Your task to perform on an android device: visit the assistant section in the google photos Image 0: 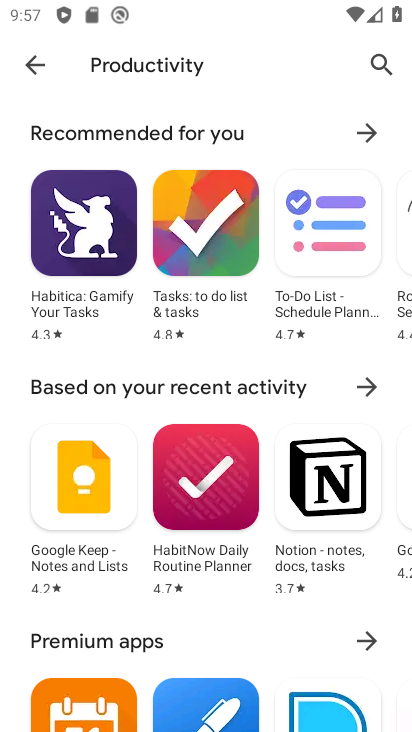
Step 0: press home button
Your task to perform on an android device: visit the assistant section in the google photos Image 1: 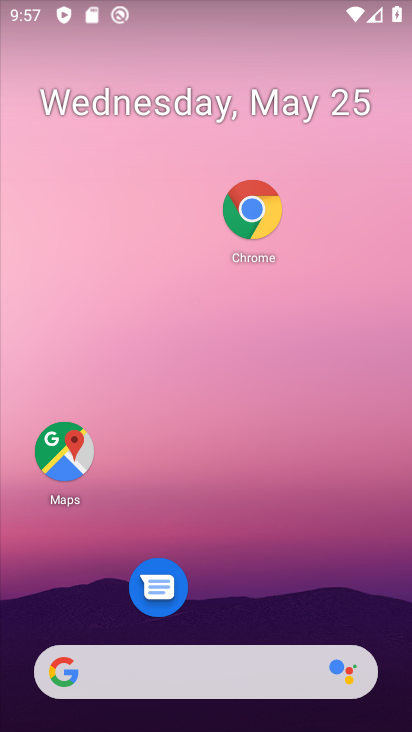
Step 1: drag from (235, 628) to (273, 4)
Your task to perform on an android device: visit the assistant section in the google photos Image 2: 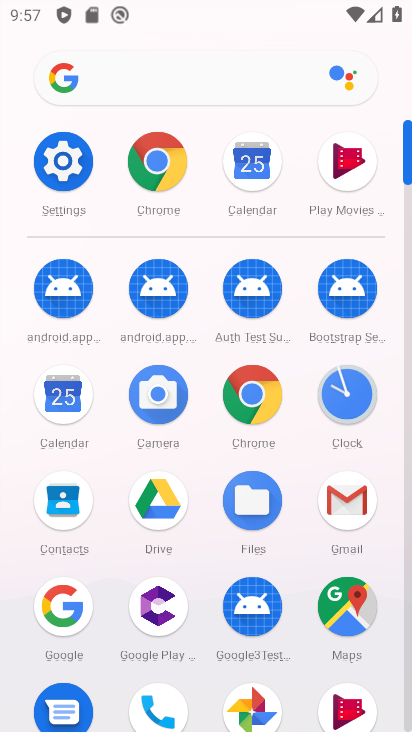
Step 2: drag from (309, 652) to (315, 376)
Your task to perform on an android device: visit the assistant section in the google photos Image 3: 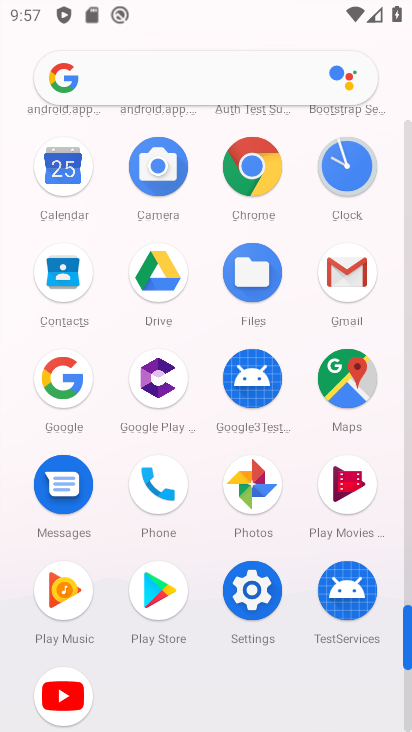
Step 3: click (249, 507)
Your task to perform on an android device: visit the assistant section in the google photos Image 4: 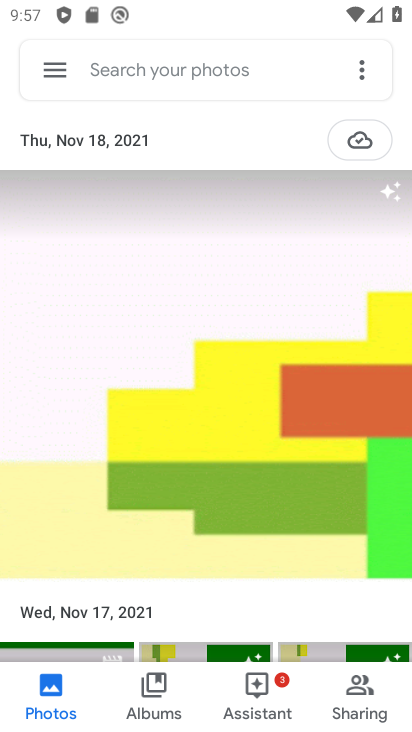
Step 4: click (265, 698)
Your task to perform on an android device: visit the assistant section in the google photos Image 5: 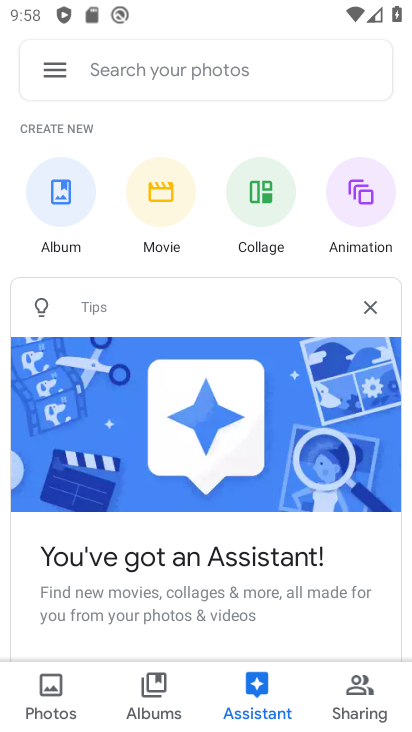
Step 5: task complete